Your task to perform on an android device: Show me the alarms in the clock app Image 0: 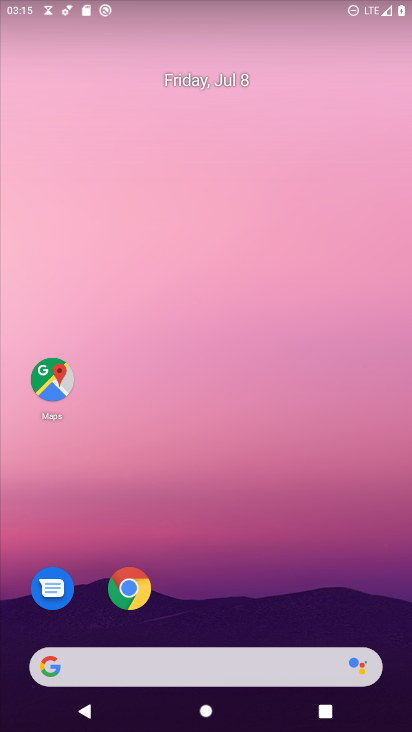
Step 0: drag from (183, 544) to (180, 115)
Your task to perform on an android device: Show me the alarms in the clock app Image 1: 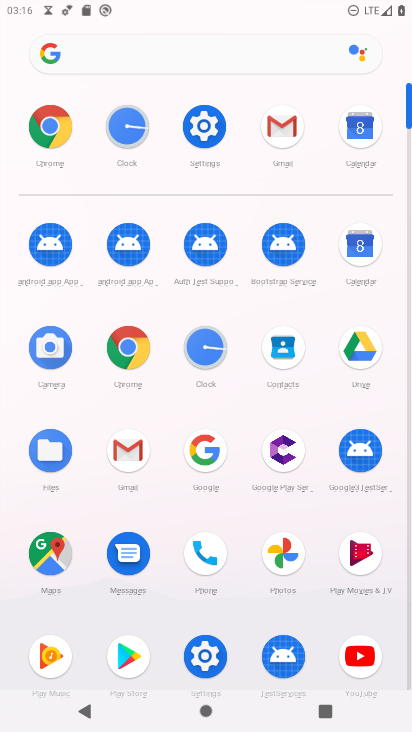
Step 1: click (128, 125)
Your task to perform on an android device: Show me the alarms in the clock app Image 2: 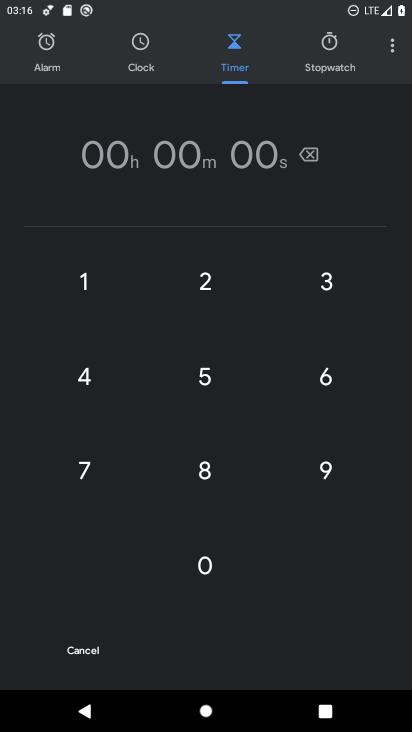
Step 2: click (35, 55)
Your task to perform on an android device: Show me the alarms in the clock app Image 3: 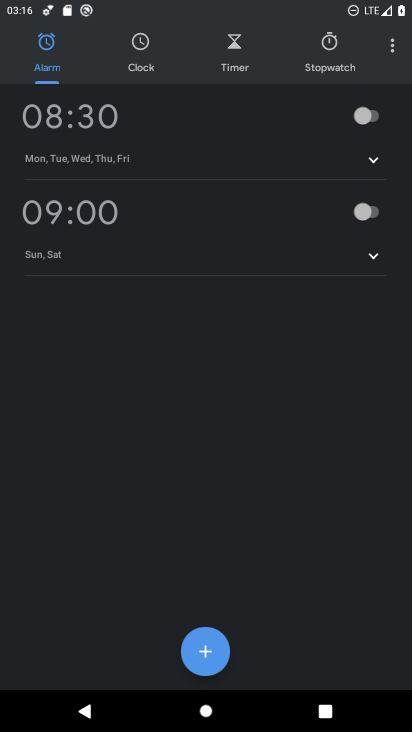
Step 3: task complete